Your task to perform on an android device: Where can I buy a nice beach tote? Image 0: 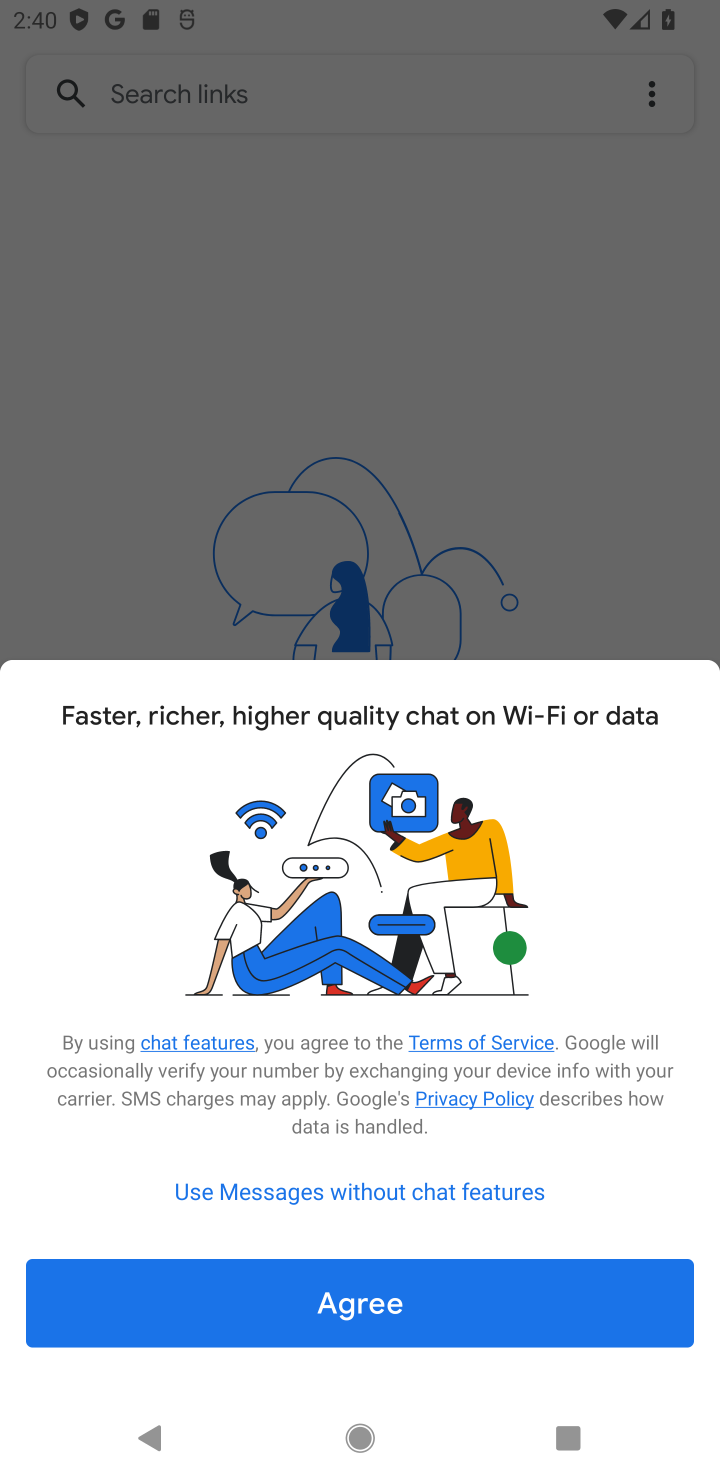
Step 0: press home button
Your task to perform on an android device: Where can I buy a nice beach tote? Image 1: 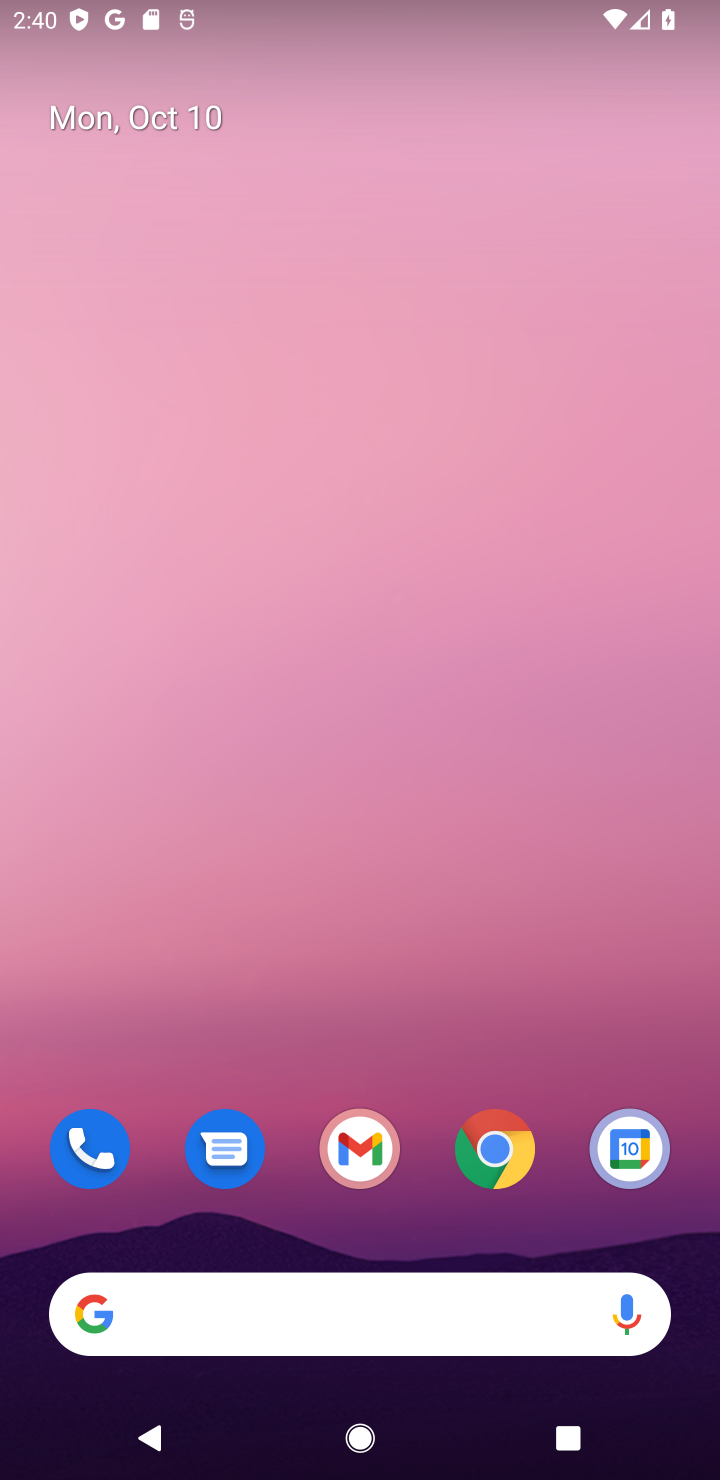
Step 1: click (367, 1309)
Your task to perform on an android device: Where can I buy a nice beach tote? Image 2: 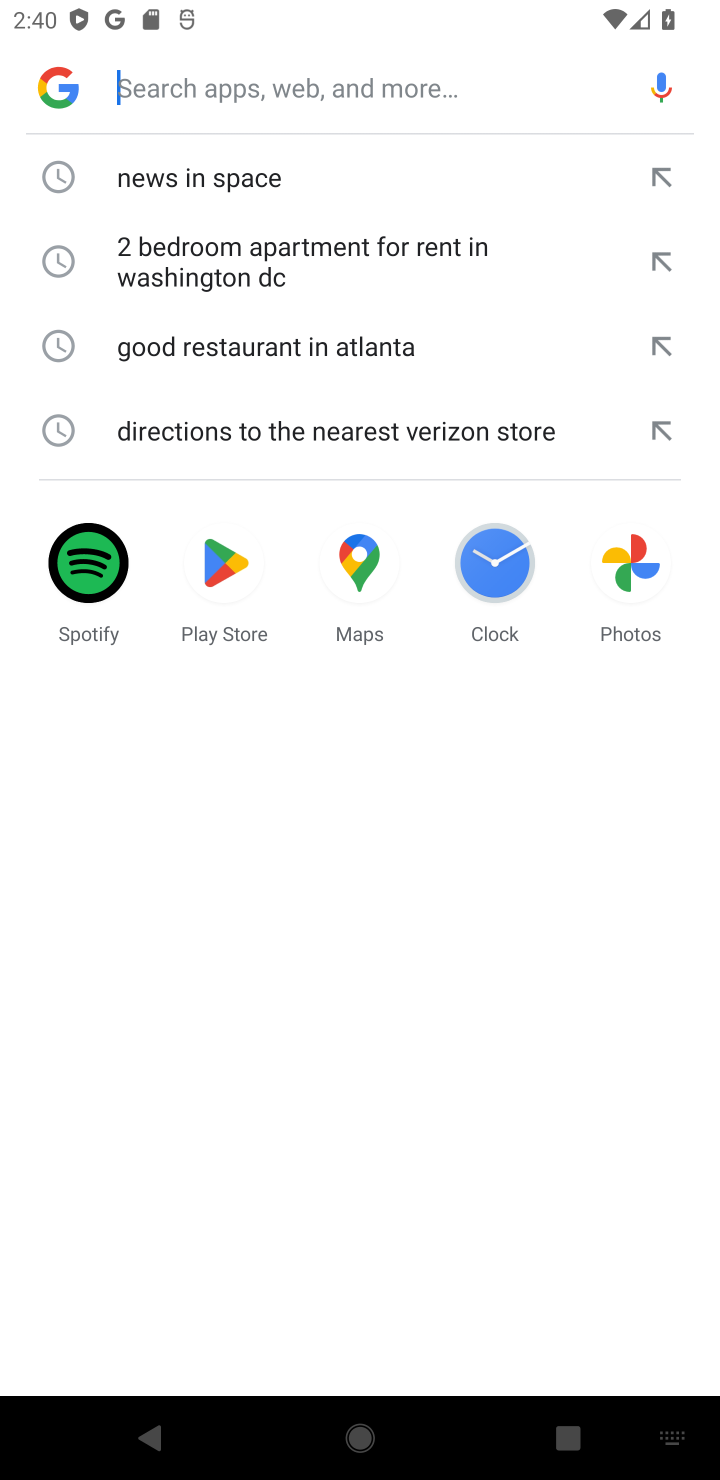
Step 2: type "Where can I buy a nice beach tote"
Your task to perform on an android device: Where can I buy a nice beach tote? Image 3: 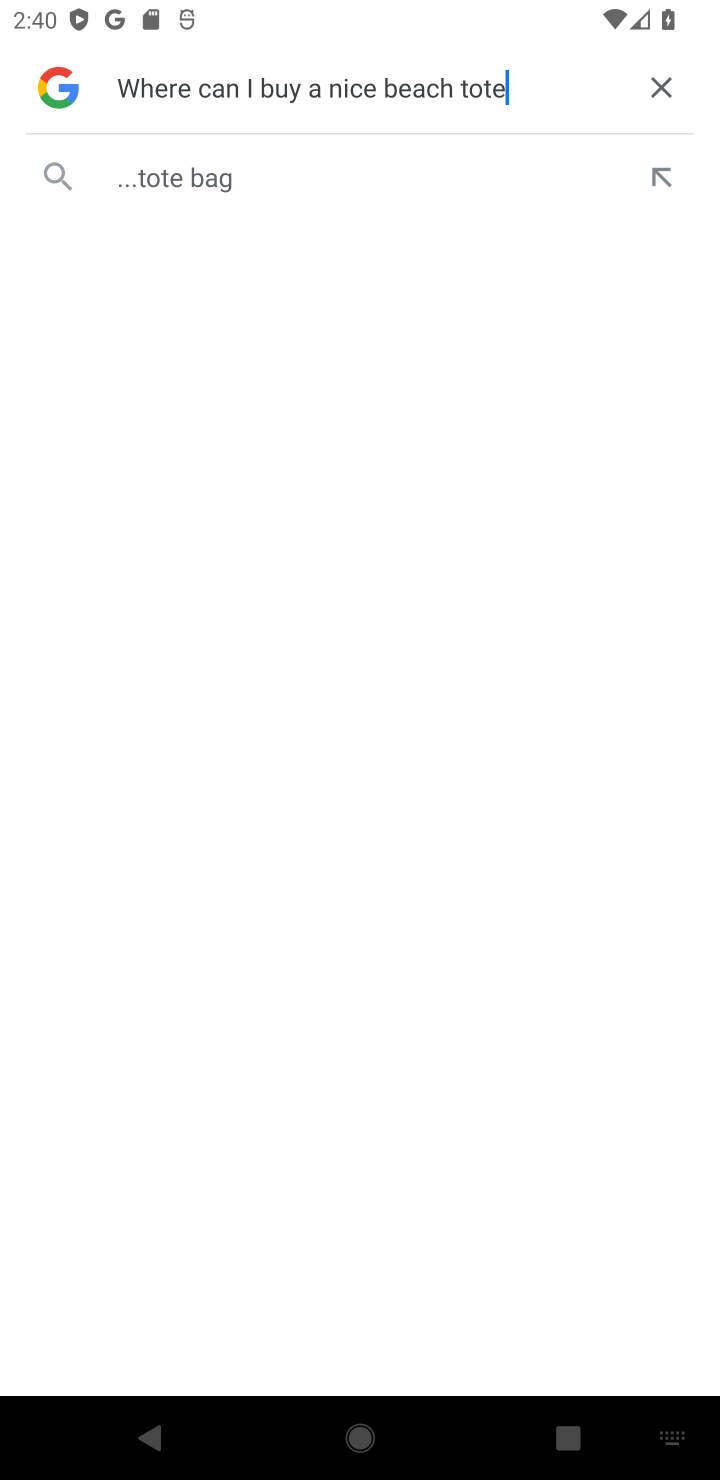
Step 3: click (332, 194)
Your task to perform on an android device: Where can I buy a nice beach tote? Image 4: 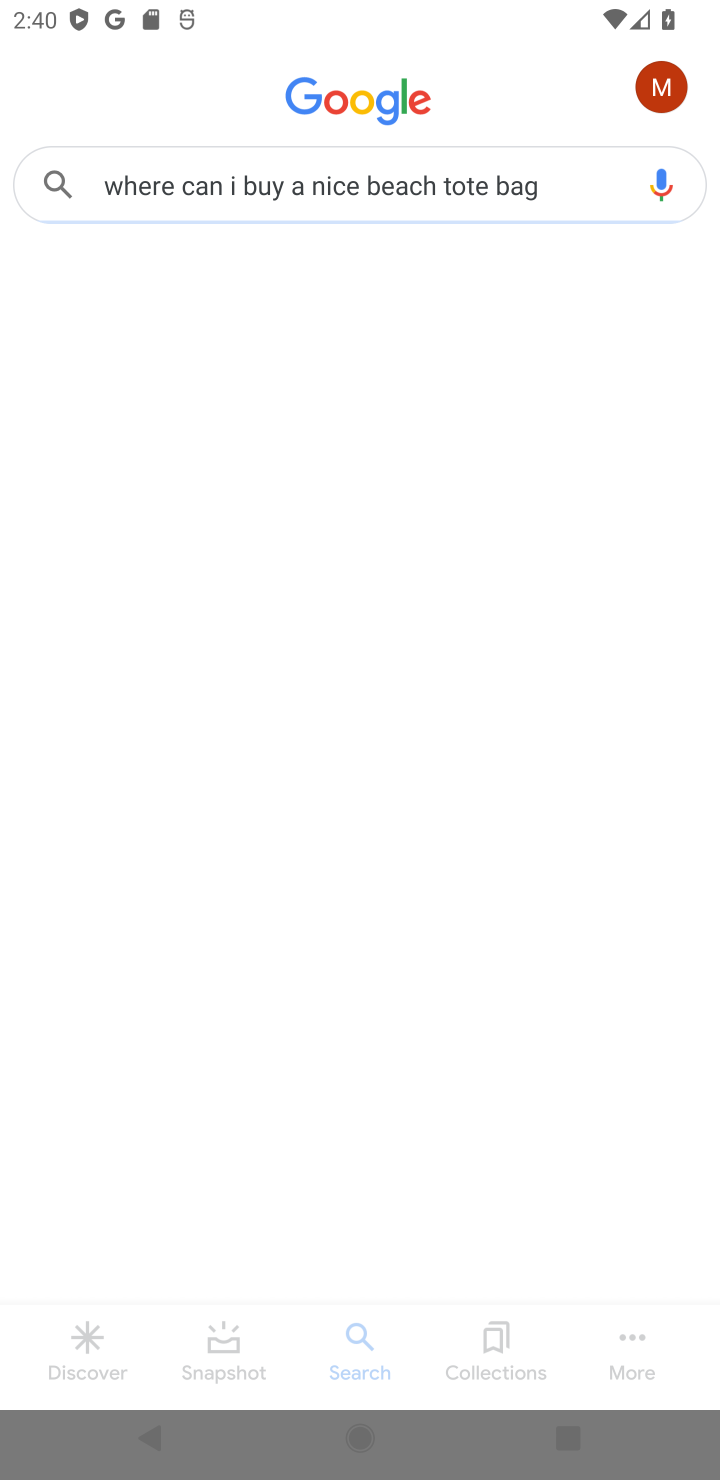
Step 4: click (332, 194)
Your task to perform on an android device: Where can I buy a nice beach tote? Image 5: 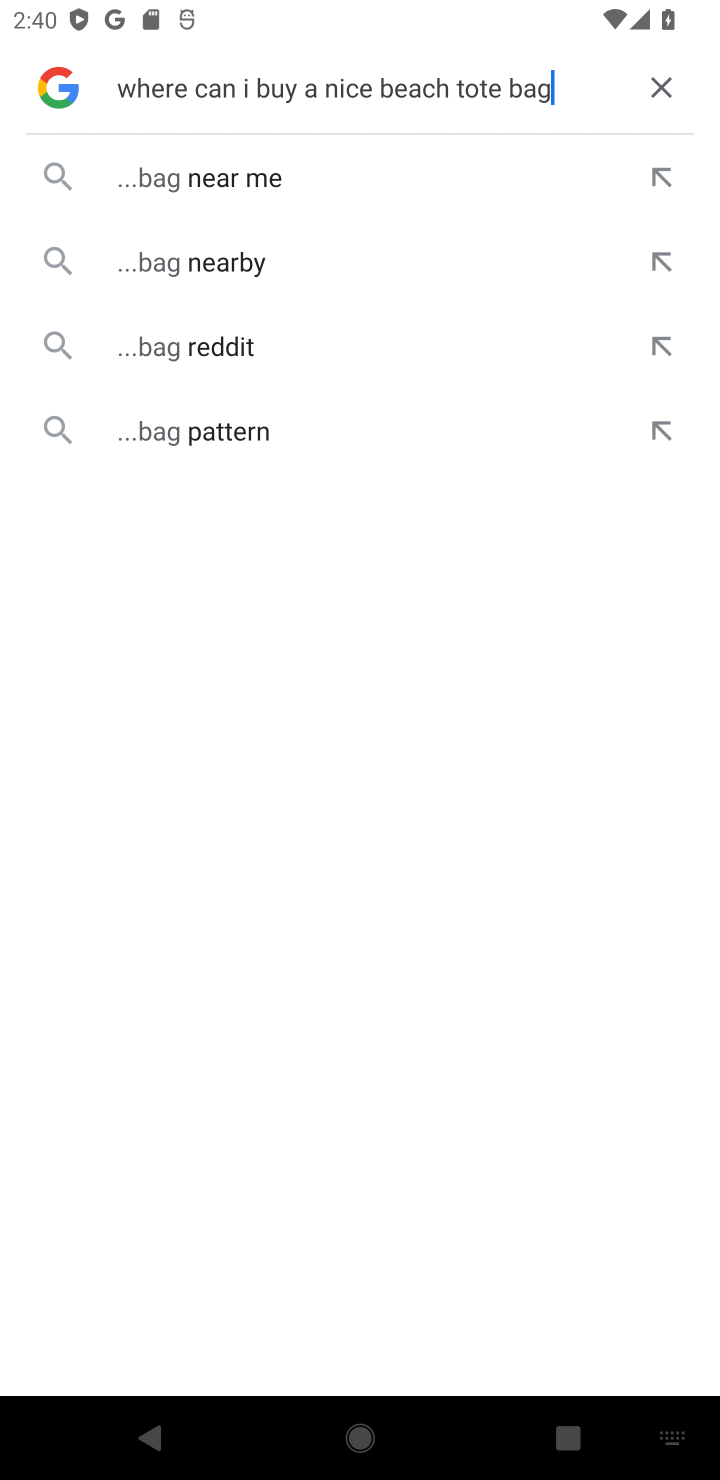
Step 5: click (332, 194)
Your task to perform on an android device: Where can I buy a nice beach tote? Image 6: 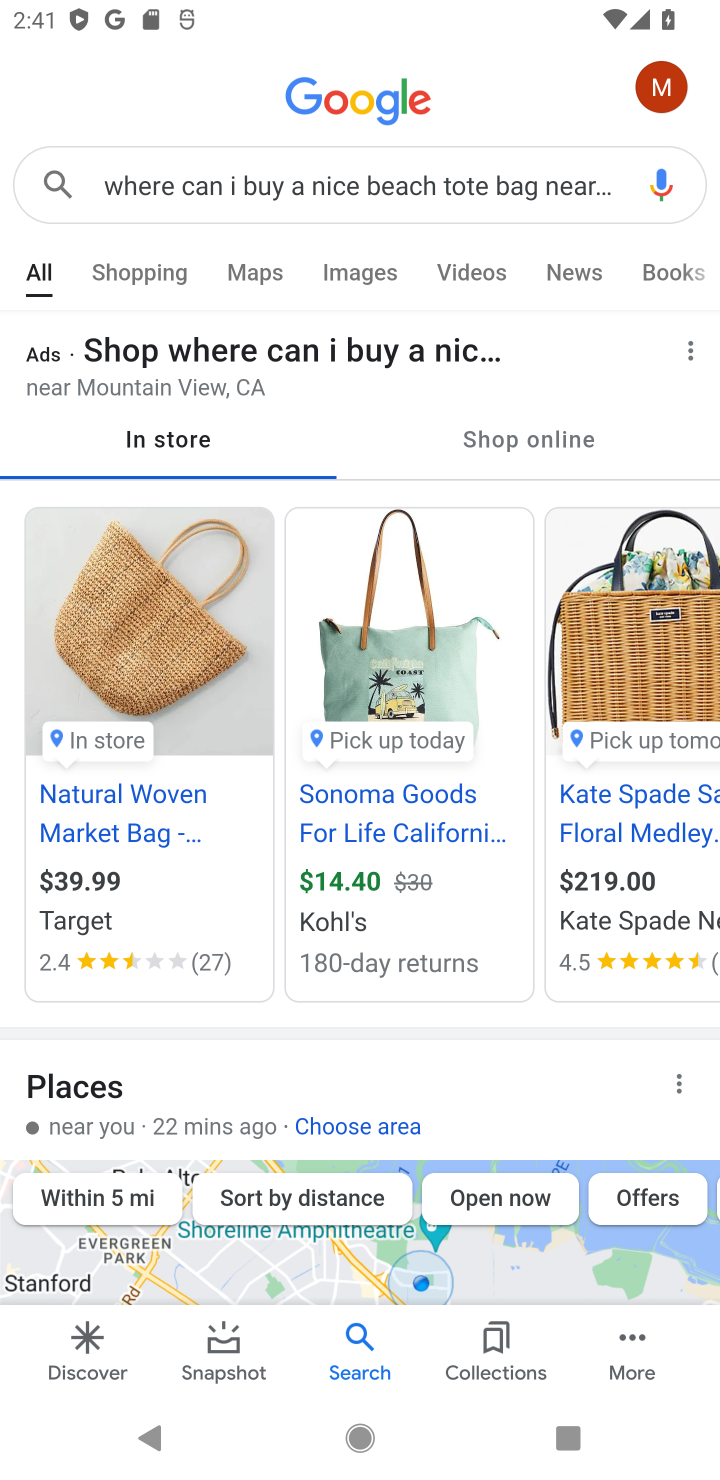
Step 6: task complete